Your task to perform on an android device: Go to Amazon Image 0: 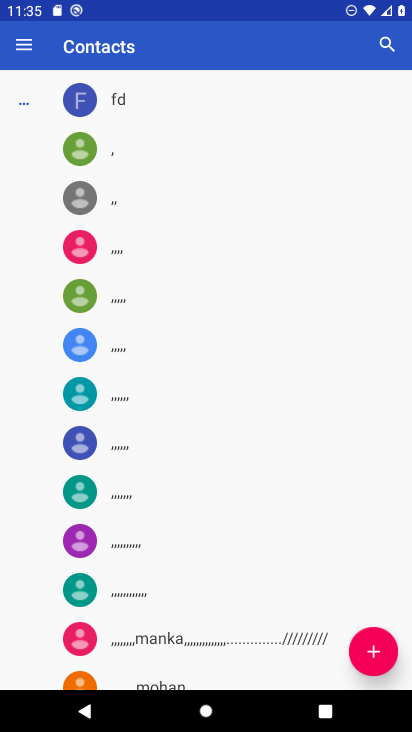
Step 0: press home button
Your task to perform on an android device: Go to Amazon Image 1: 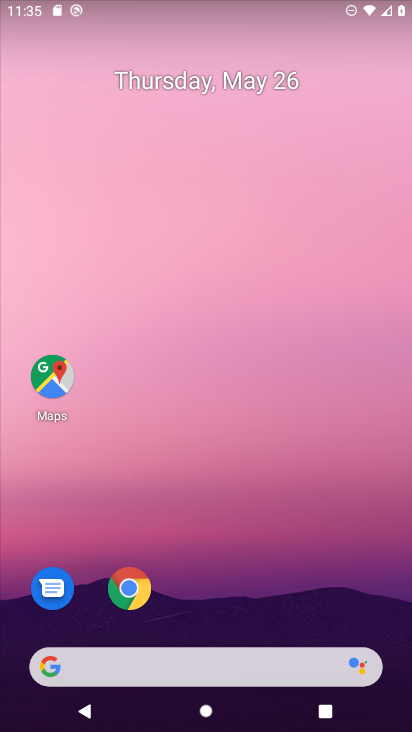
Step 1: click (127, 588)
Your task to perform on an android device: Go to Amazon Image 2: 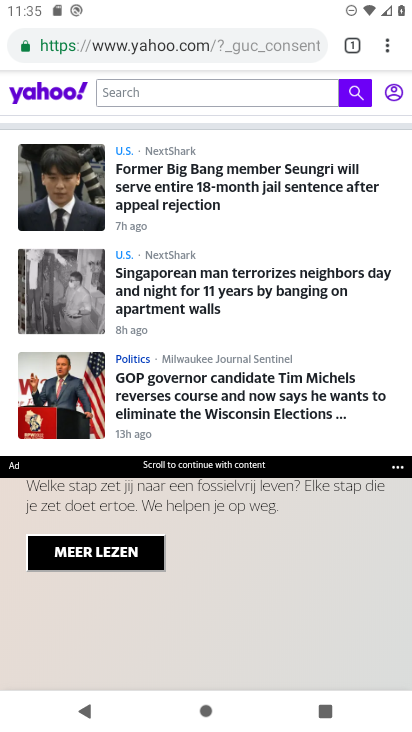
Step 2: click (286, 40)
Your task to perform on an android device: Go to Amazon Image 3: 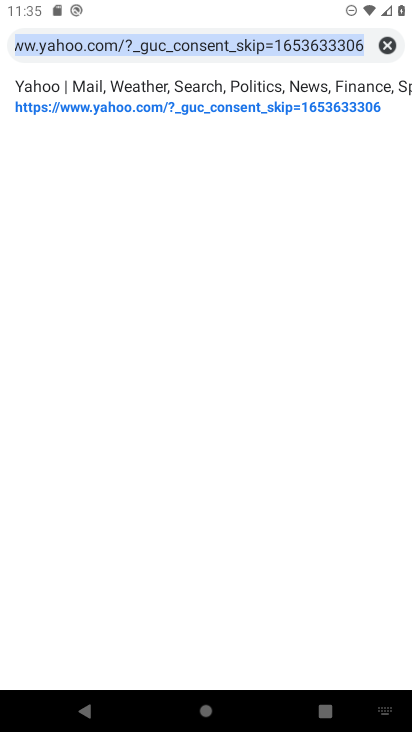
Step 3: click (388, 42)
Your task to perform on an android device: Go to Amazon Image 4: 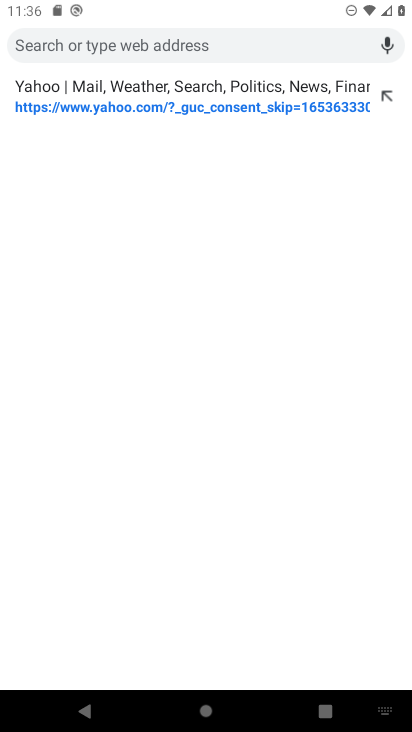
Step 4: type "amazon"
Your task to perform on an android device: Go to Amazon Image 5: 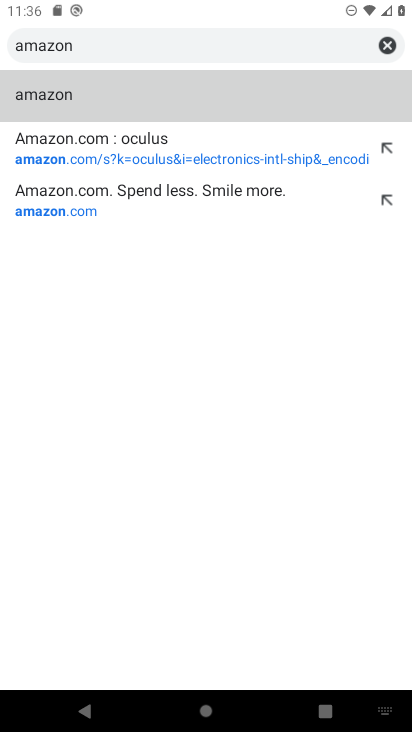
Step 5: click (42, 74)
Your task to perform on an android device: Go to Amazon Image 6: 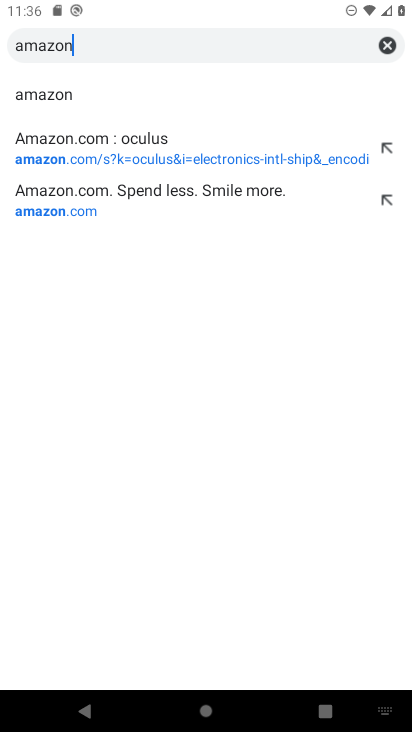
Step 6: click (26, 99)
Your task to perform on an android device: Go to Amazon Image 7: 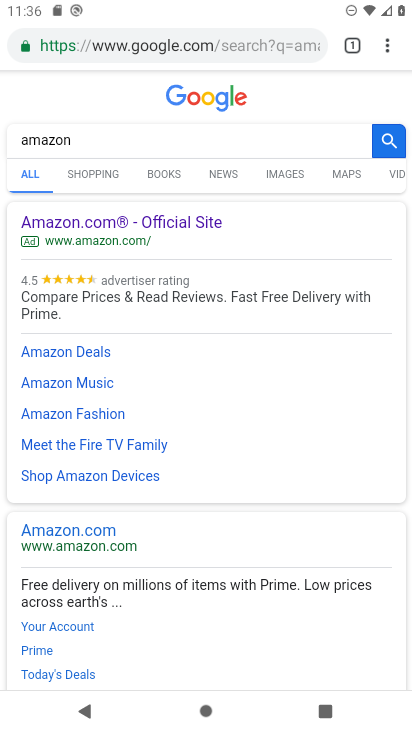
Step 7: click (82, 553)
Your task to perform on an android device: Go to Amazon Image 8: 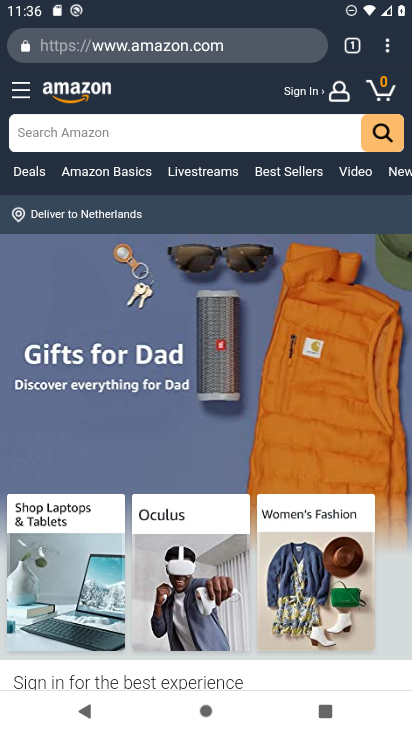
Step 8: task complete